Your task to perform on an android device: turn off sleep mode Image 0: 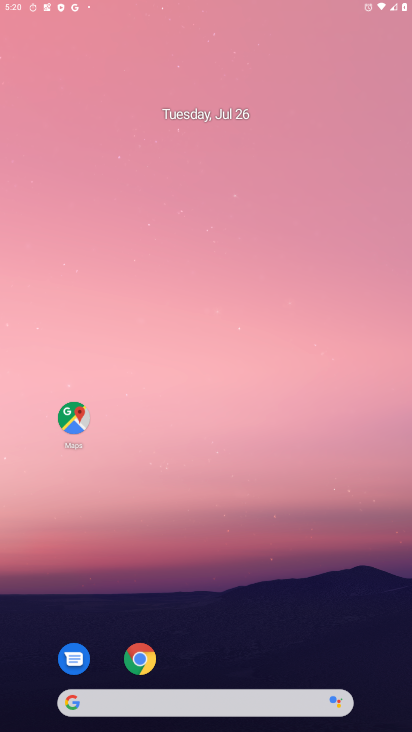
Step 0: press home button
Your task to perform on an android device: turn off sleep mode Image 1: 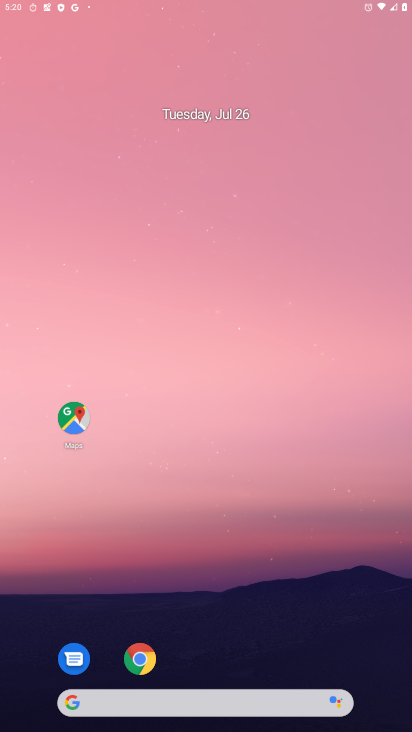
Step 1: click (215, 46)
Your task to perform on an android device: turn off sleep mode Image 2: 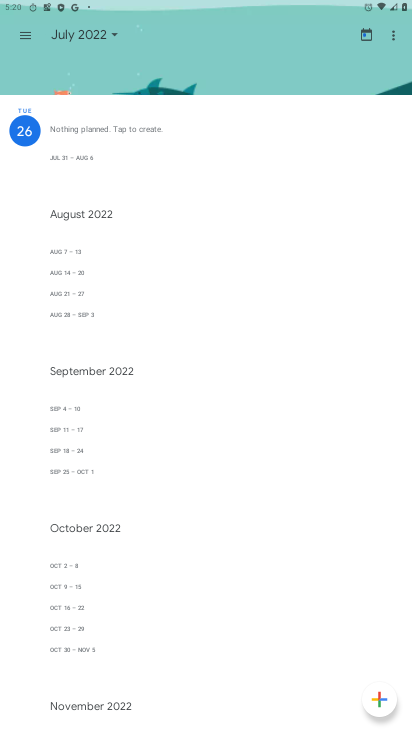
Step 2: press home button
Your task to perform on an android device: turn off sleep mode Image 3: 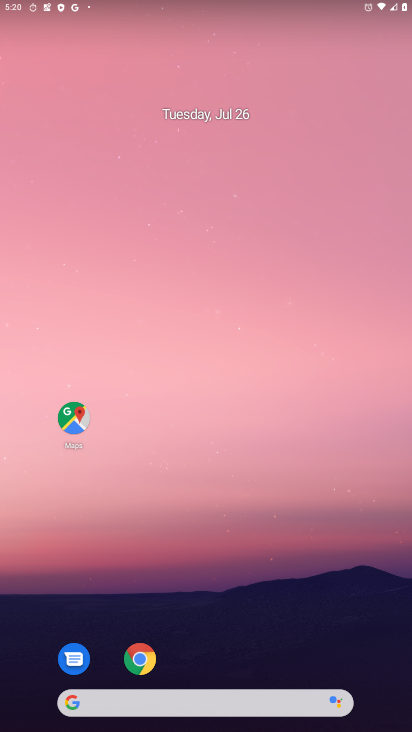
Step 3: drag from (223, 670) to (227, 50)
Your task to perform on an android device: turn off sleep mode Image 4: 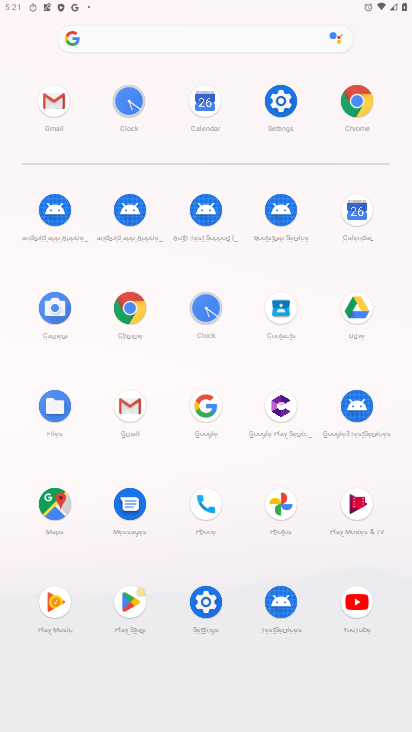
Step 4: click (281, 95)
Your task to perform on an android device: turn off sleep mode Image 5: 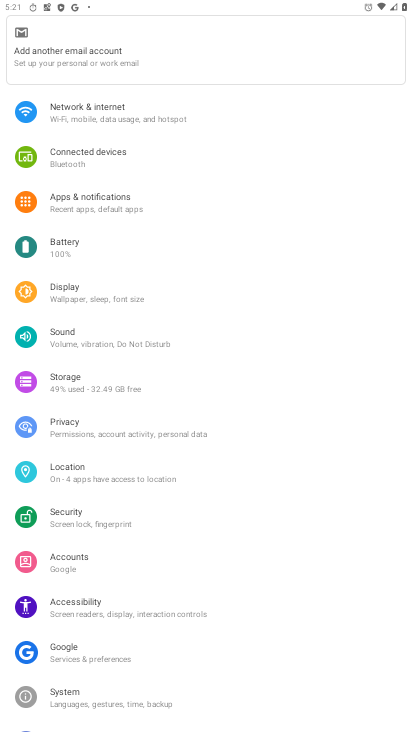
Step 5: click (95, 284)
Your task to perform on an android device: turn off sleep mode Image 6: 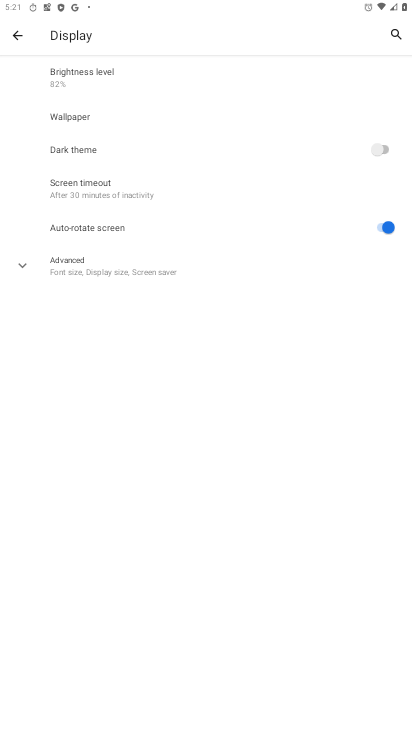
Step 6: click (21, 263)
Your task to perform on an android device: turn off sleep mode Image 7: 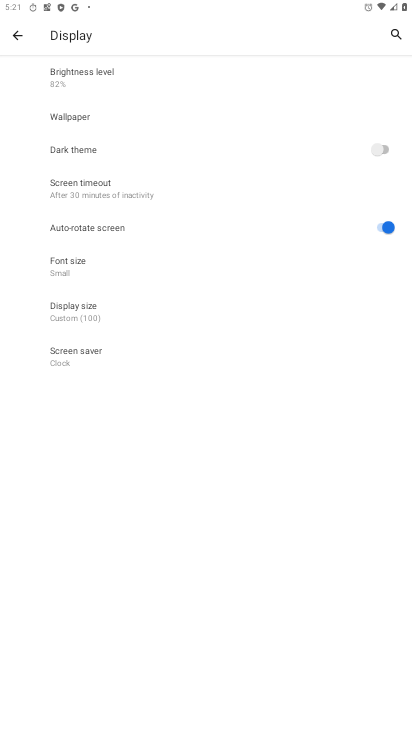
Step 7: task complete